Your task to perform on an android device: Go to Amazon Image 0: 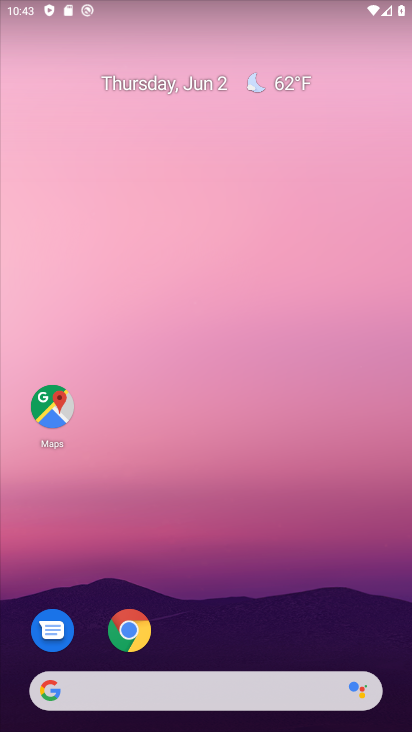
Step 0: press home button
Your task to perform on an android device: Go to Amazon Image 1: 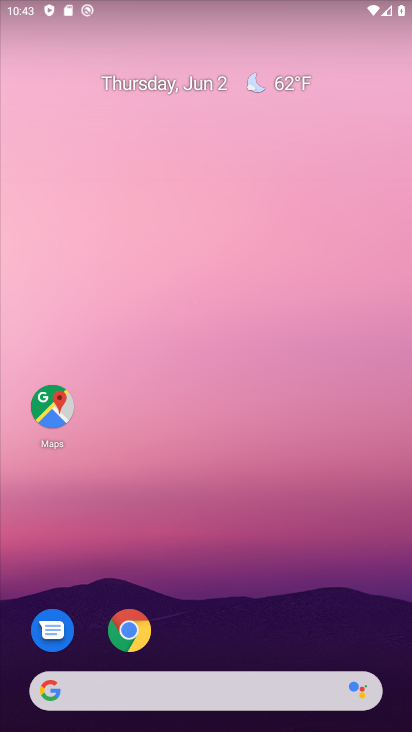
Step 1: click (140, 630)
Your task to perform on an android device: Go to Amazon Image 2: 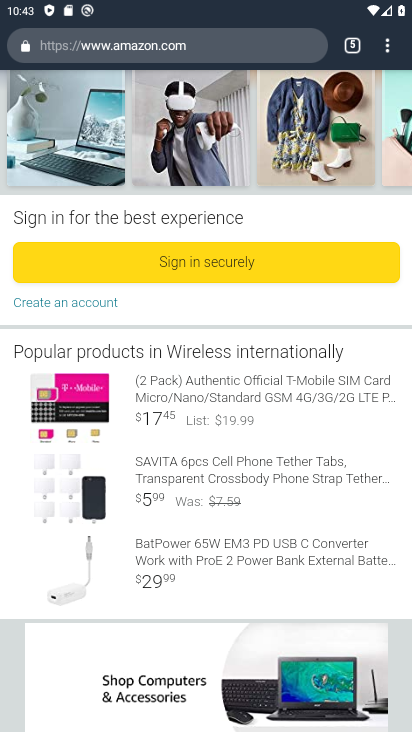
Step 2: drag from (393, 46) to (283, 100)
Your task to perform on an android device: Go to Amazon Image 3: 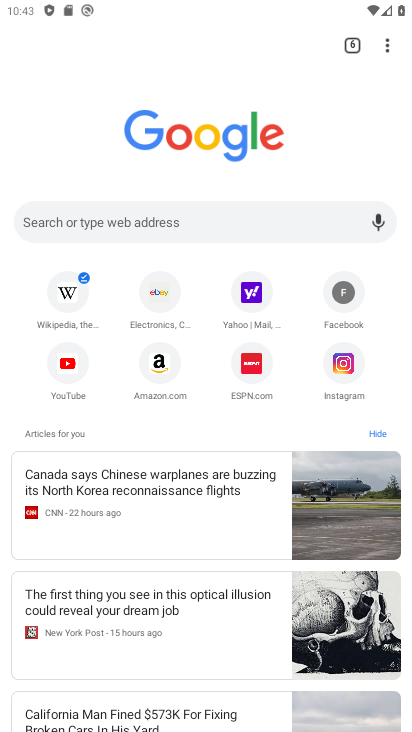
Step 3: click (162, 359)
Your task to perform on an android device: Go to Amazon Image 4: 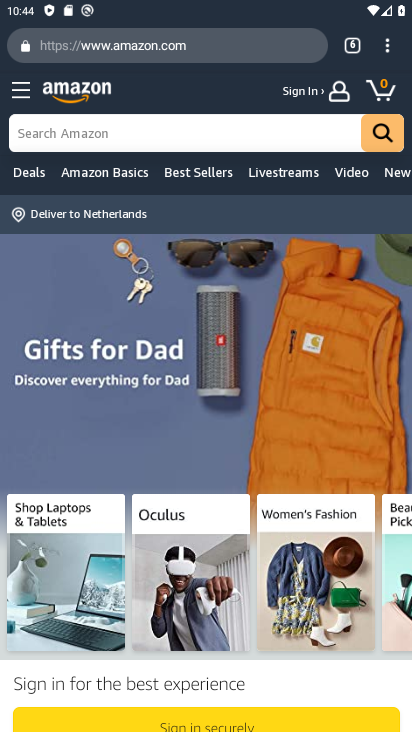
Step 4: task complete